Your task to perform on an android device: open app "Indeed Job Search" Image 0: 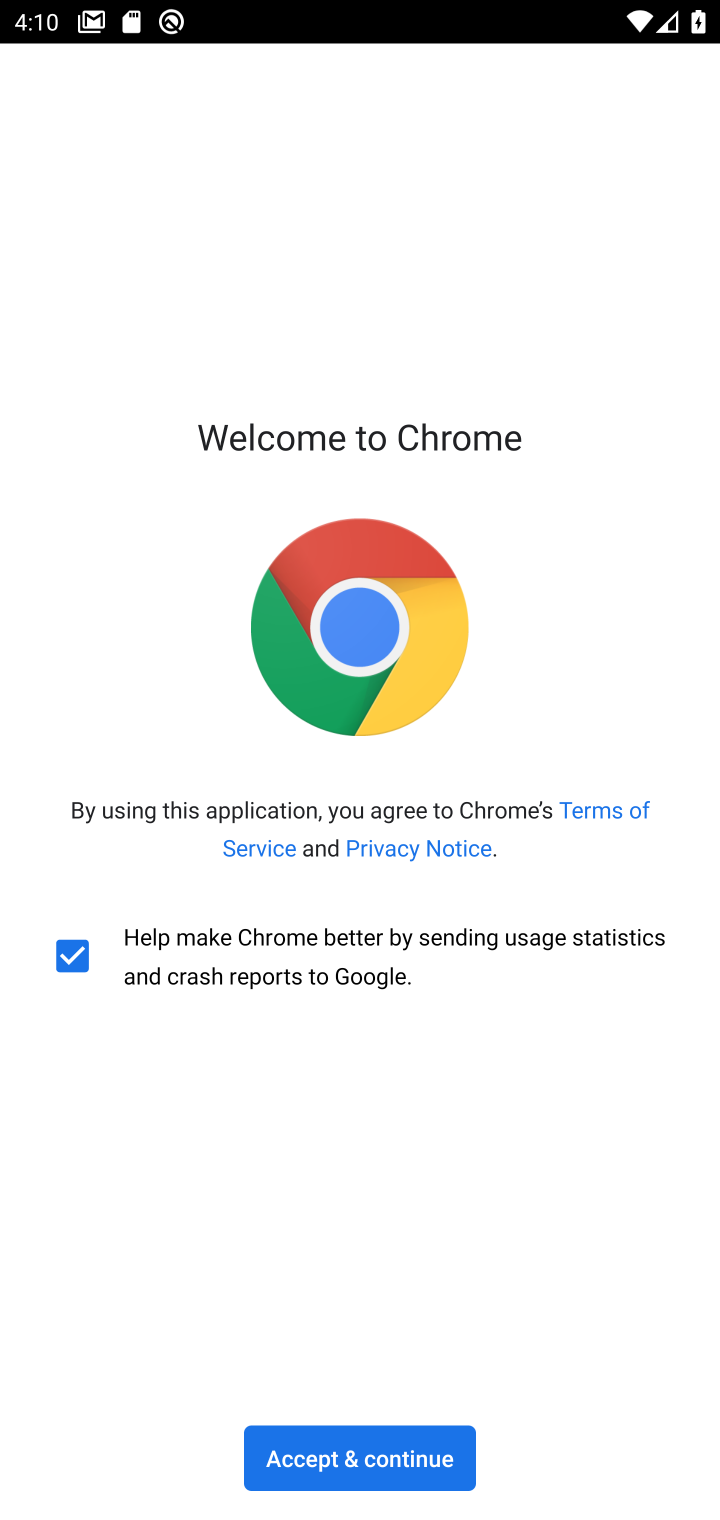
Step 0: press home button
Your task to perform on an android device: open app "Indeed Job Search" Image 1: 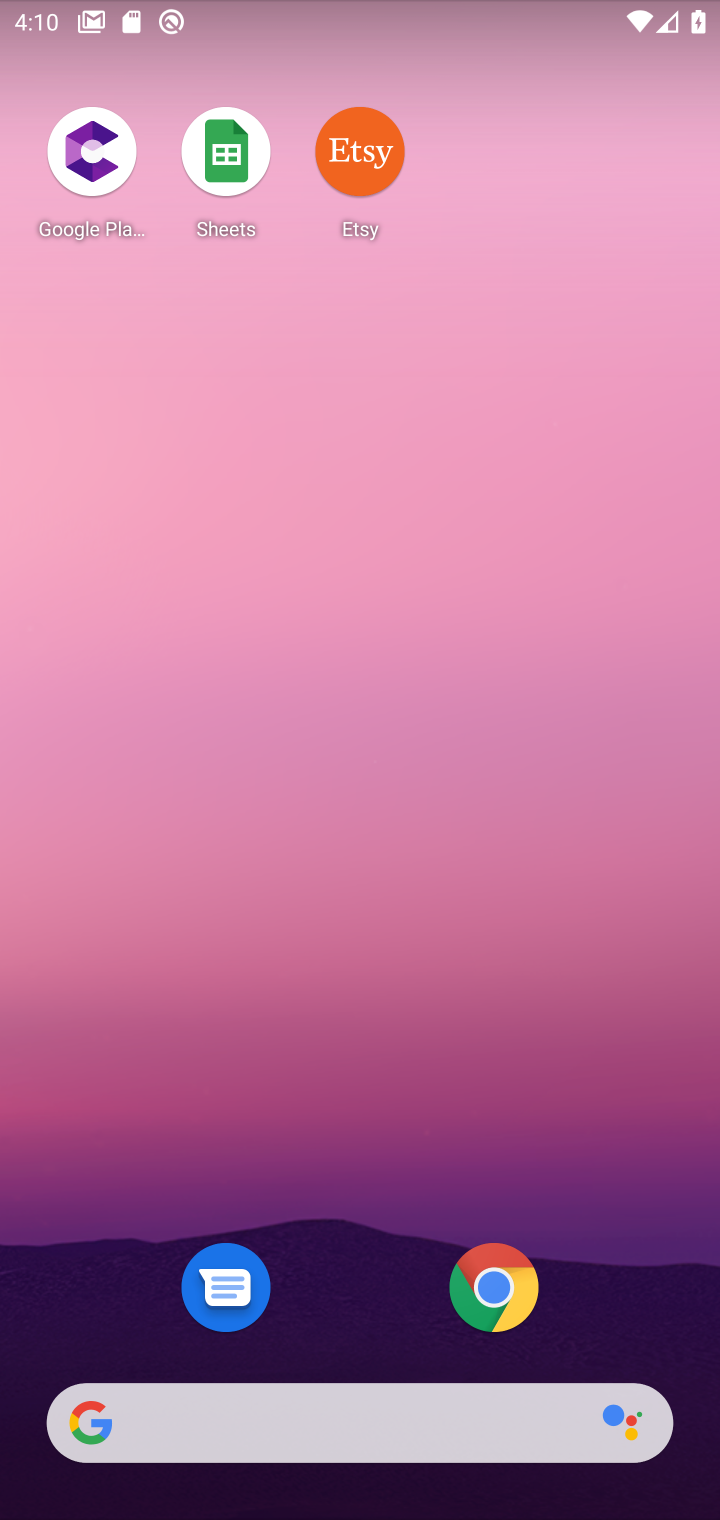
Step 1: drag from (329, 1308) to (266, 286)
Your task to perform on an android device: open app "Indeed Job Search" Image 2: 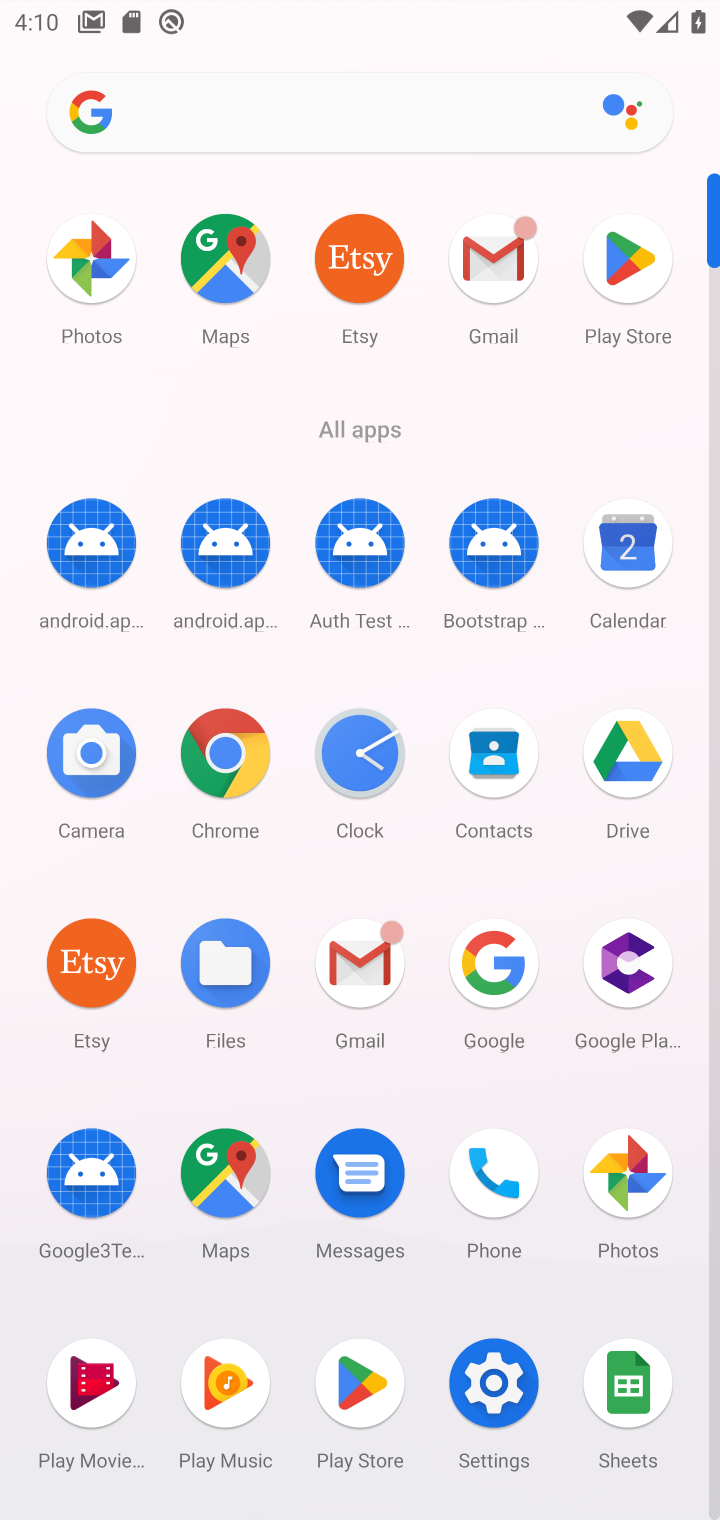
Step 2: drag from (274, 1415) to (264, 283)
Your task to perform on an android device: open app "Indeed Job Search" Image 3: 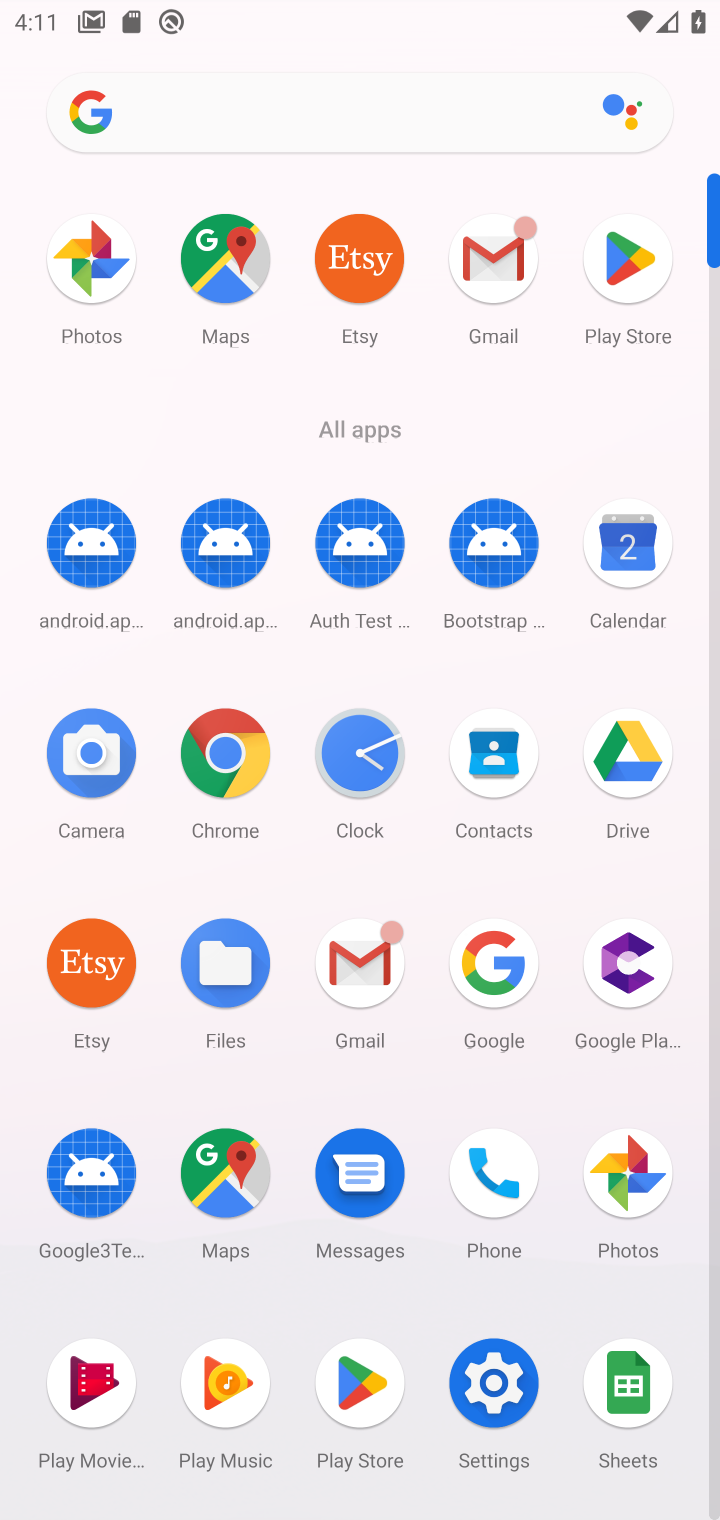
Step 3: click (396, 1402)
Your task to perform on an android device: open app "Indeed Job Search" Image 4: 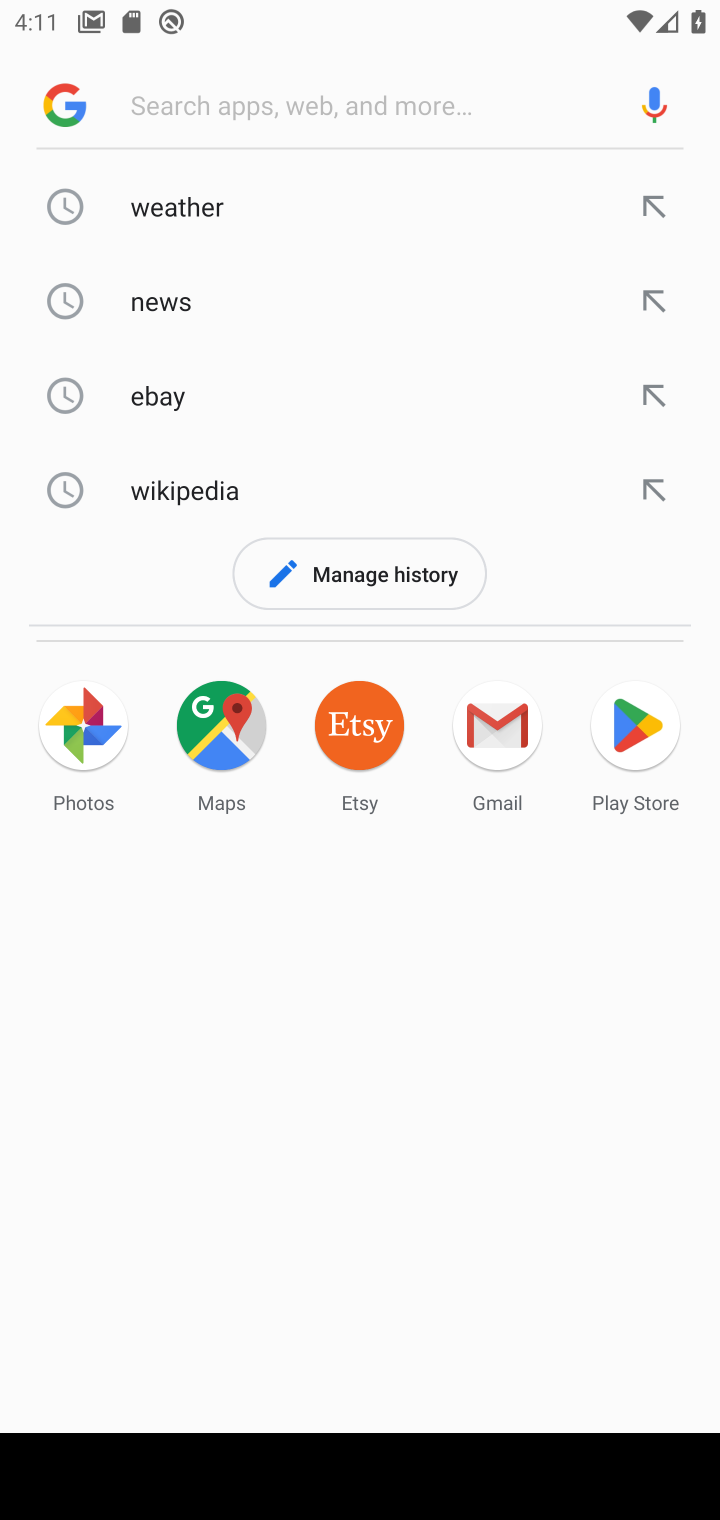
Step 4: press home button
Your task to perform on an android device: open app "Indeed Job Search" Image 5: 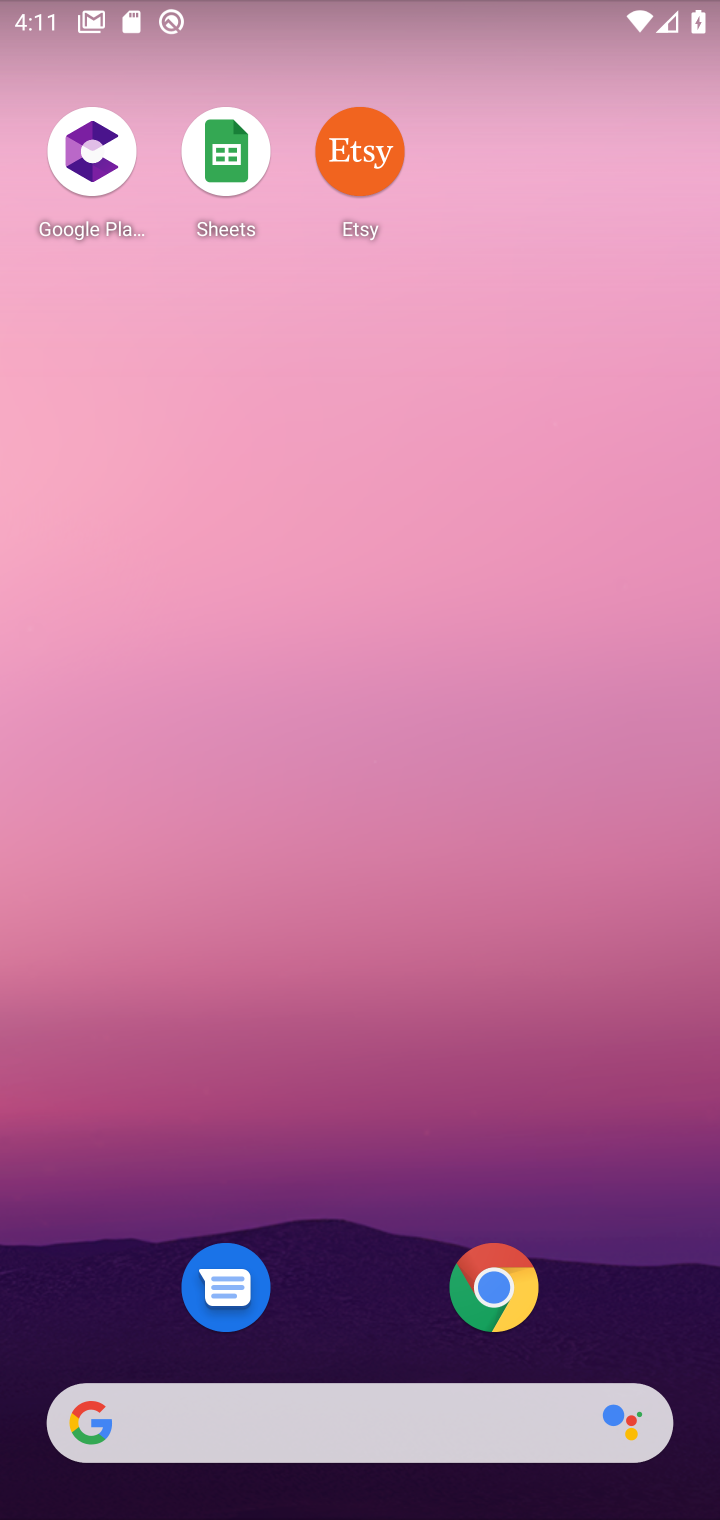
Step 5: drag from (342, 1424) to (199, 417)
Your task to perform on an android device: open app "Indeed Job Search" Image 6: 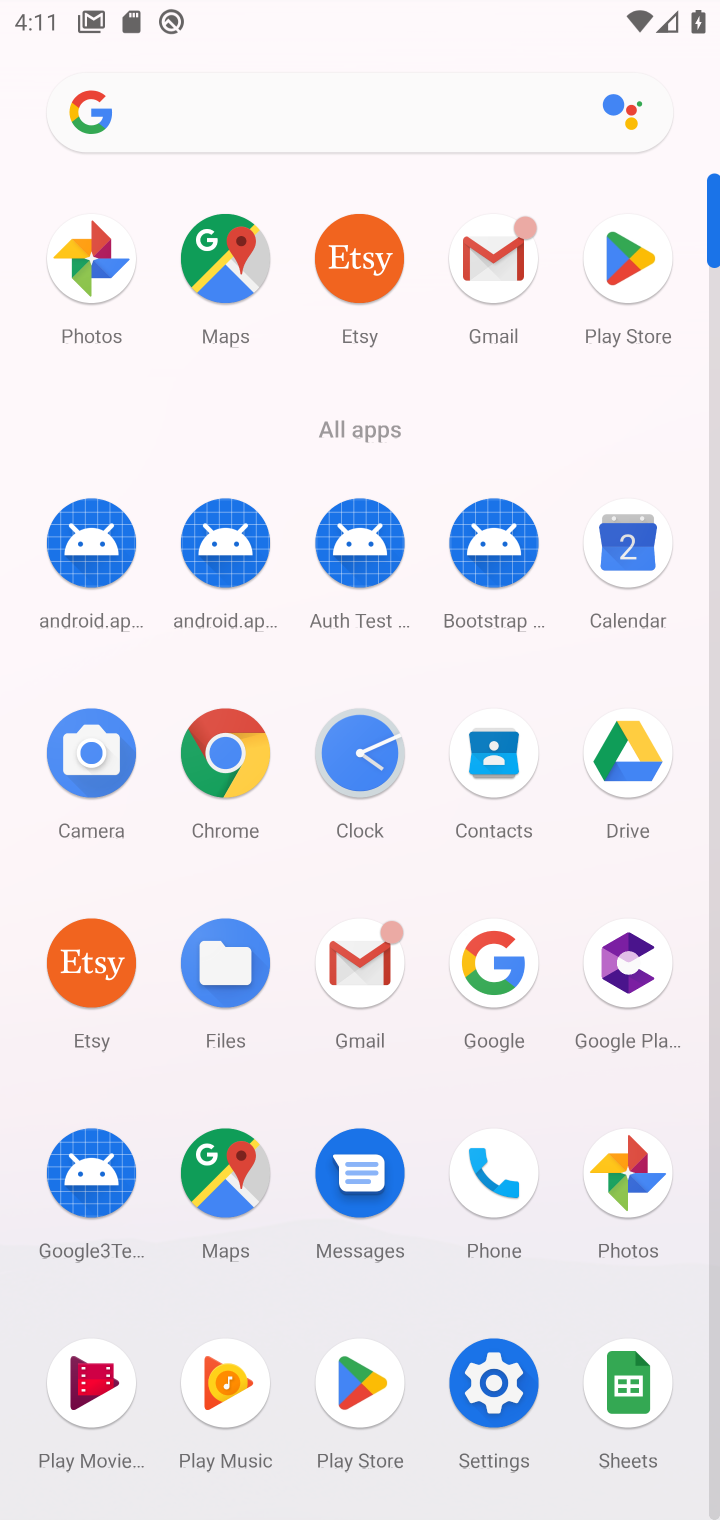
Step 6: click (319, 1400)
Your task to perform on an android device: open app "Indeed Job Search" Image 7: 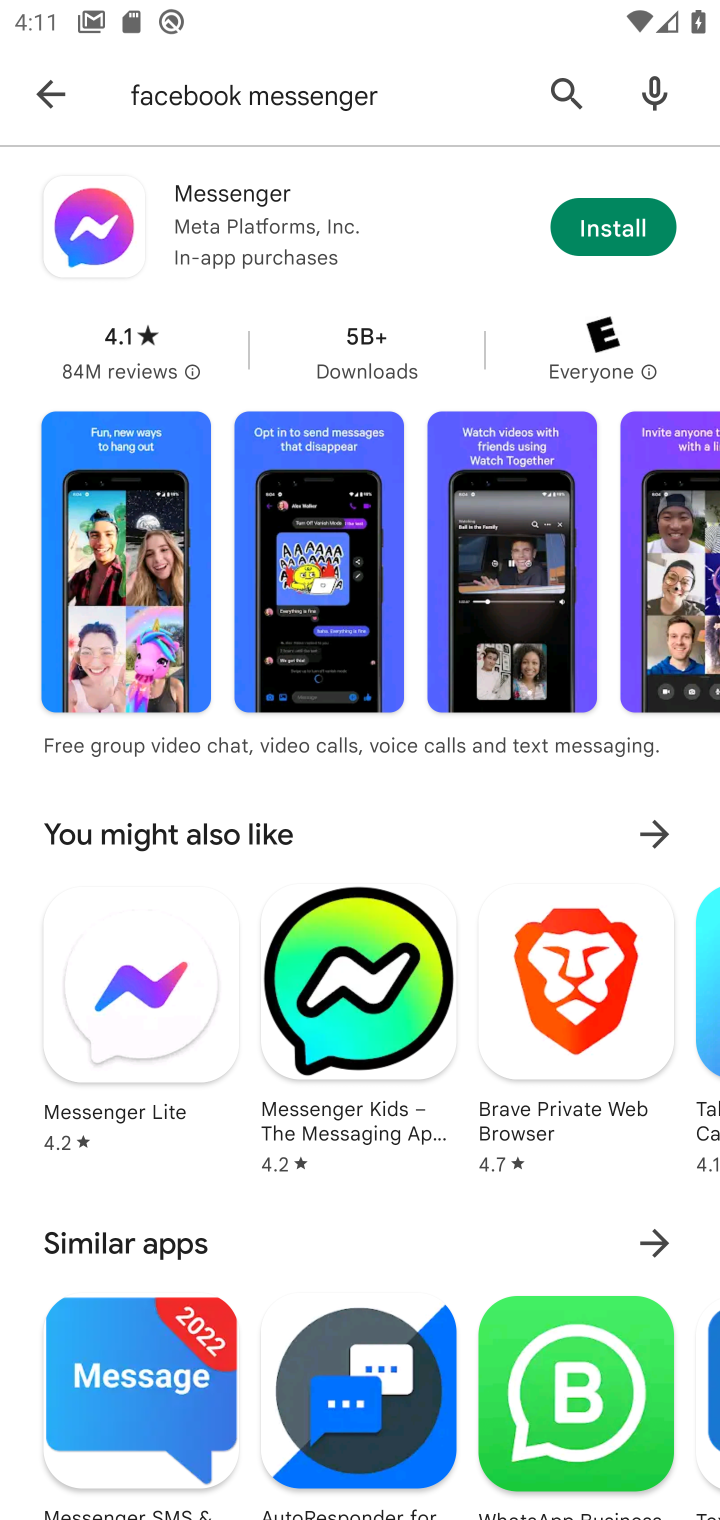
Step 7: click (562, 99)
Your task to perform on an android device: open app "Indeed Job Search" Image 8: 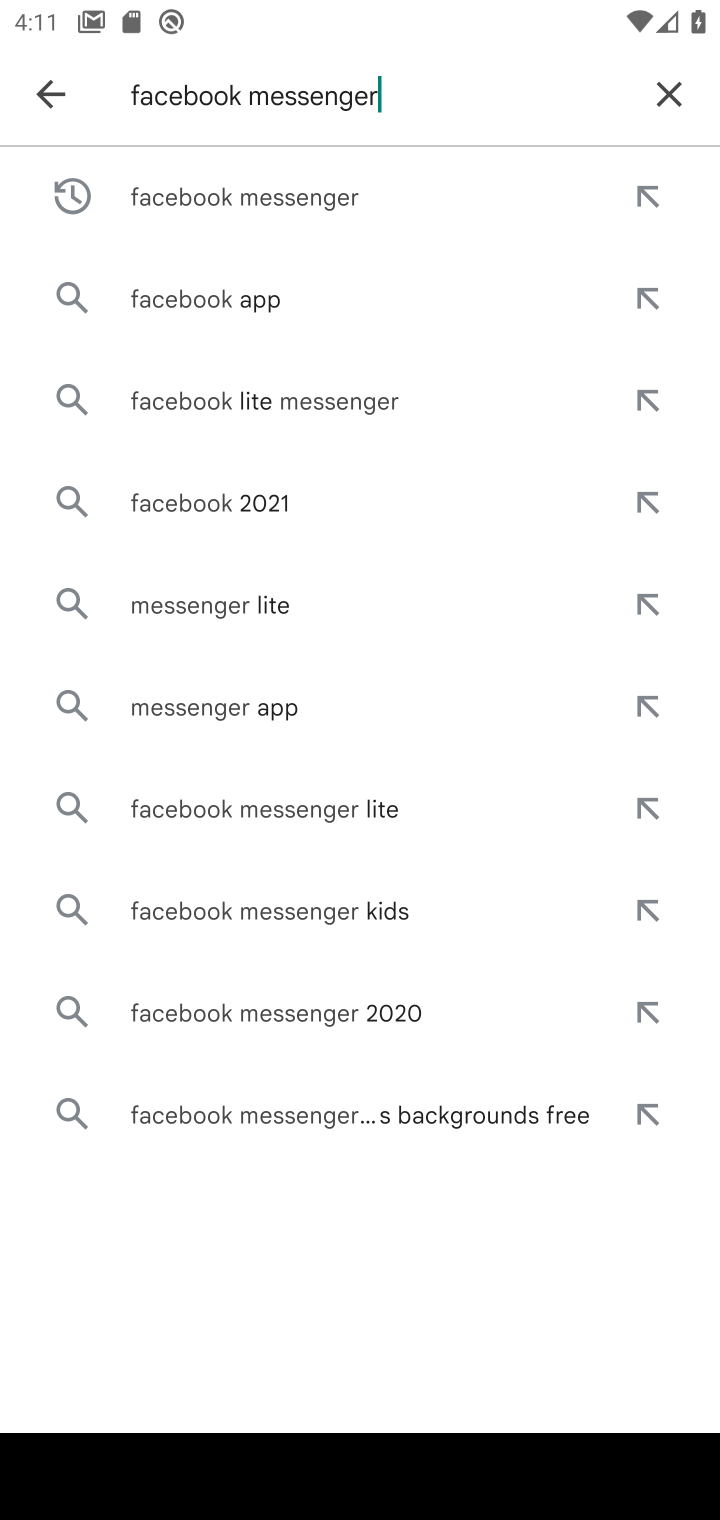
Step 8: click (678, 71)
Your task to perform on an android device: open app "Indeed Job Search" Image 9: 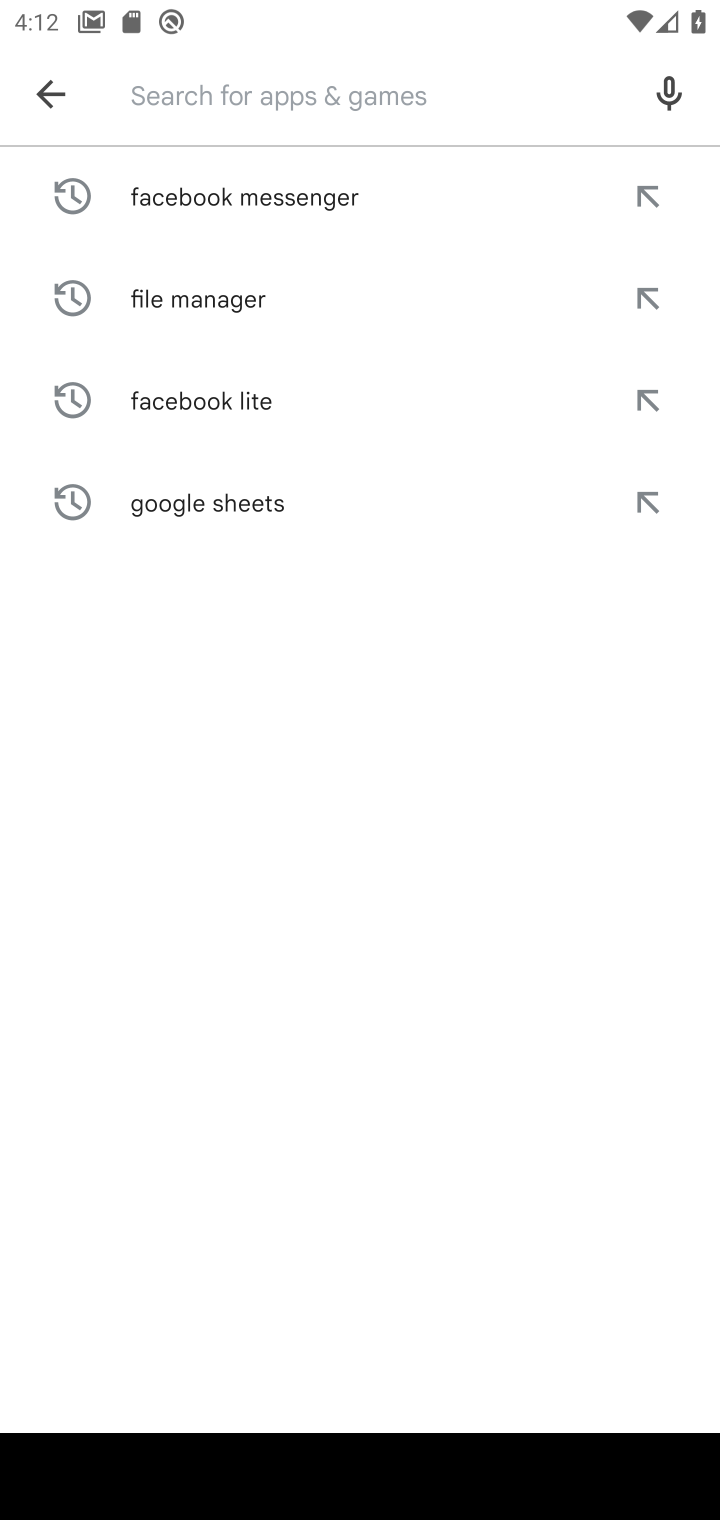
Step 9: type "Indeed Job Search"
Your task to perform on an android device: open app "Indeed Job Search" Image 10: 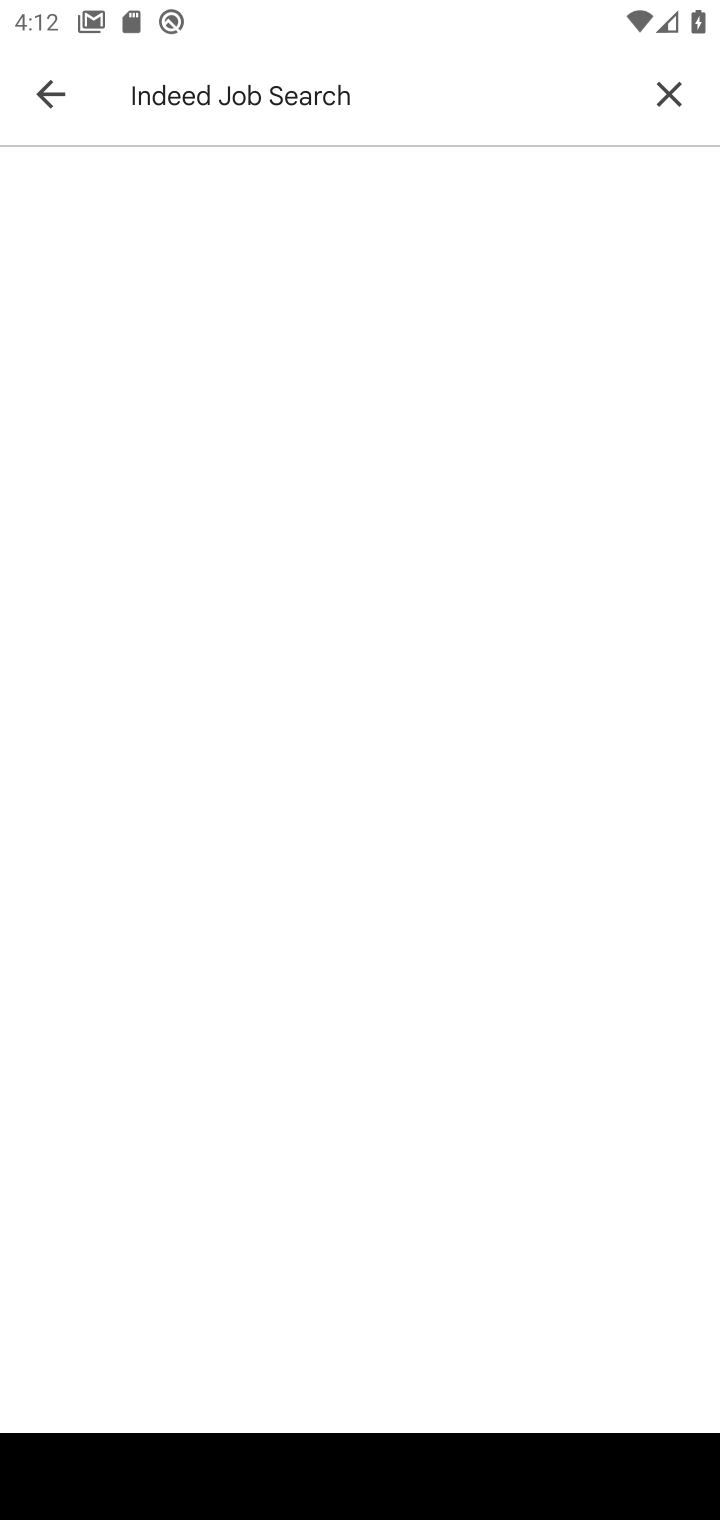
Step 10: press enter
Your task to perform on an android device: open app "Indeed Job Search" Image 11: 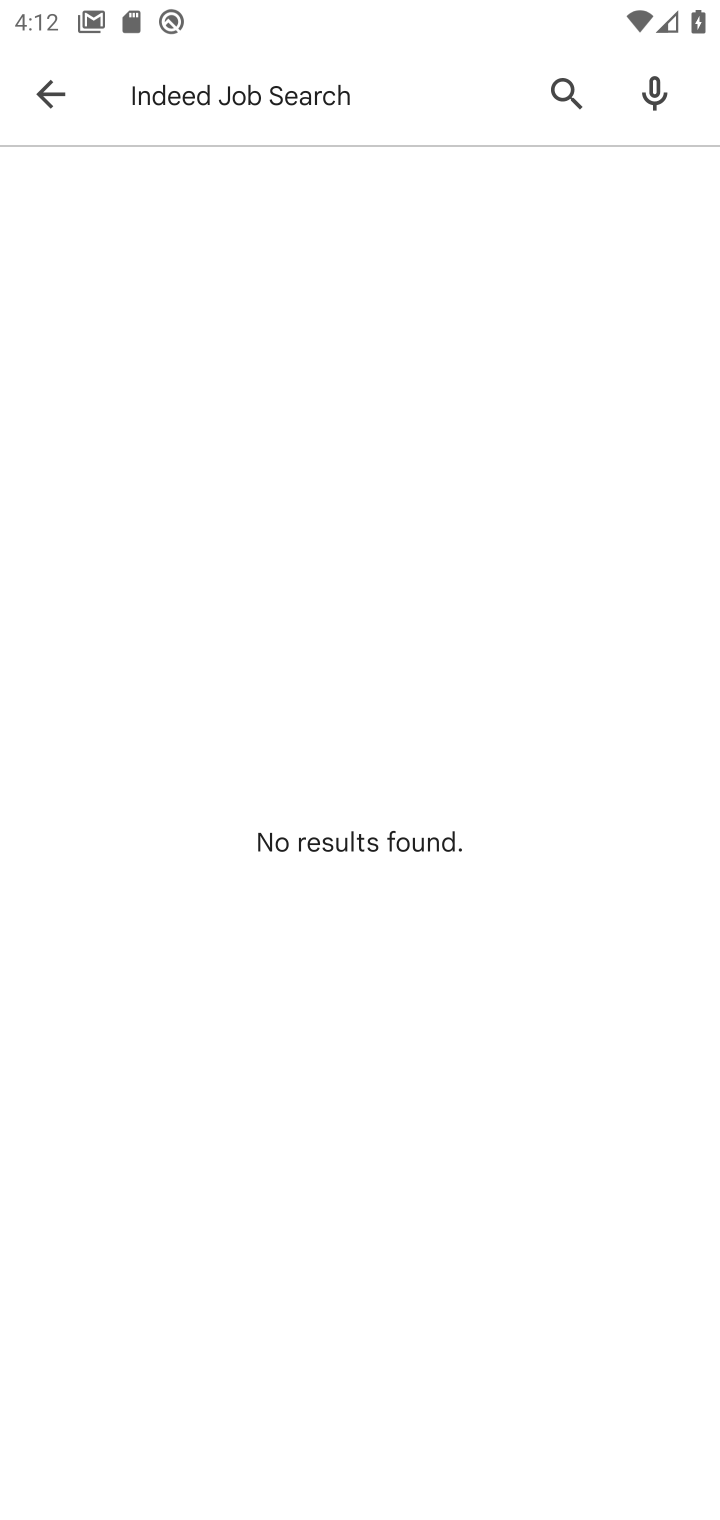
Step 11: press enter
Your task to perform on an android device: open app "Indeed Job Search" Image 12: 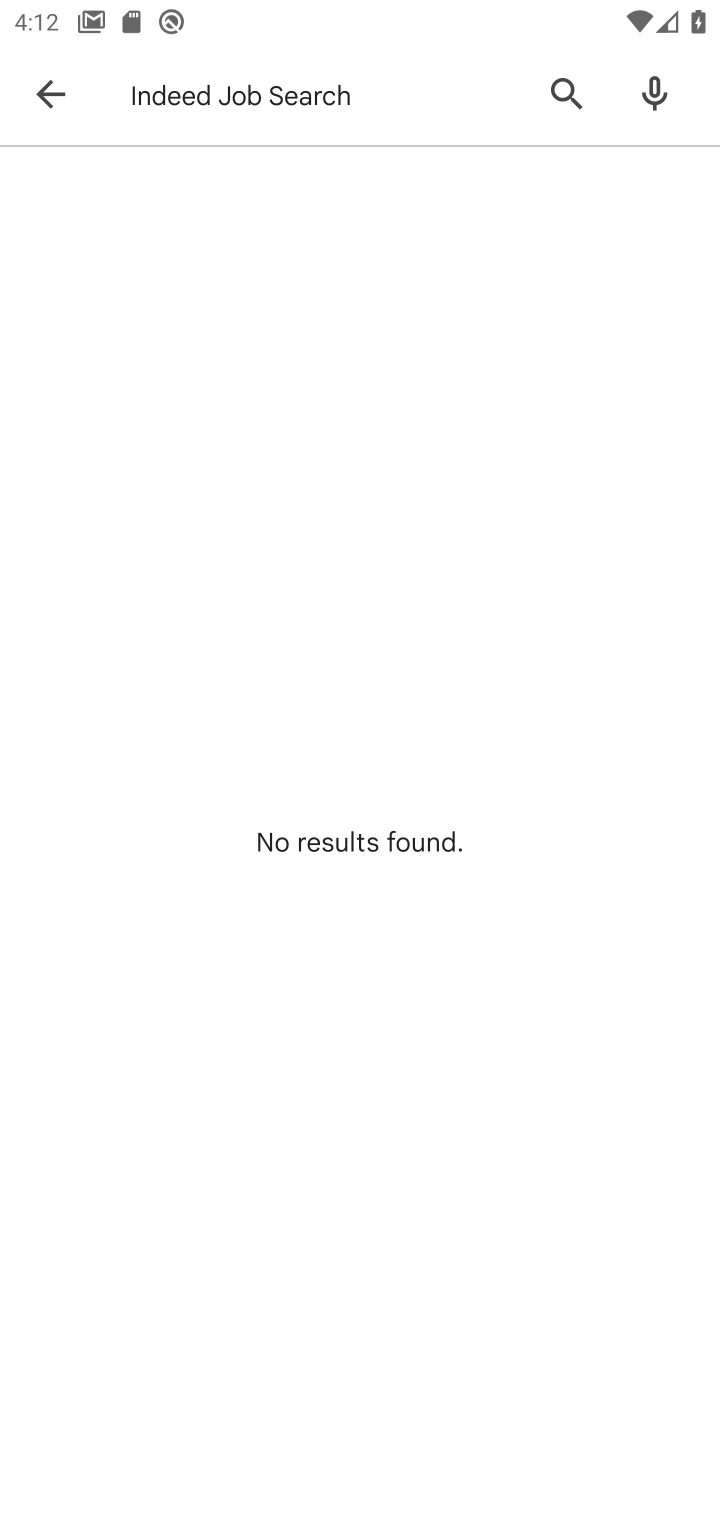
Step 12: task complete